Your task to perform on an android device: add a contact Image 0: 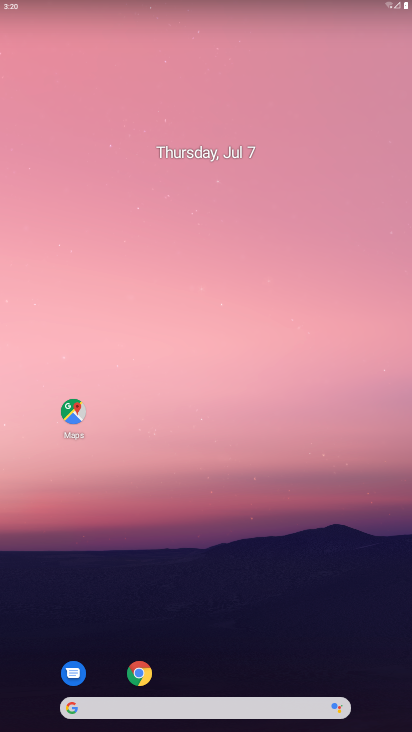
Step 0: drag from (196, 656) to (219, 46)
Your task to perform on an android device: add a contact Image 1: 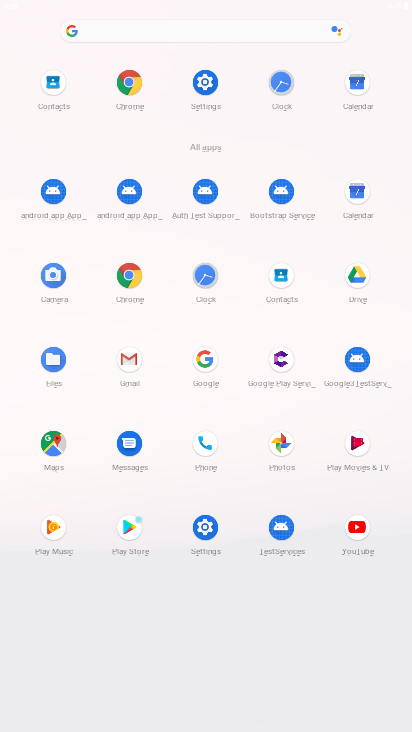
Step 1: click (289, 274)
Your task to perform on an android device: add a contact Image 2: 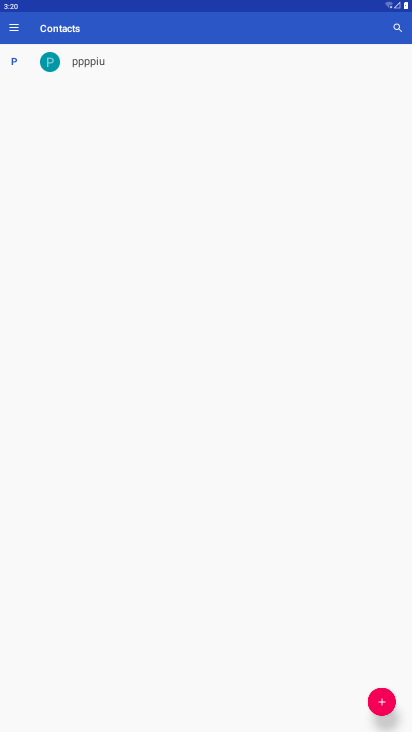
Step 2: click (382, 701)
Your task to perform on an android device: add a contact Image 3: 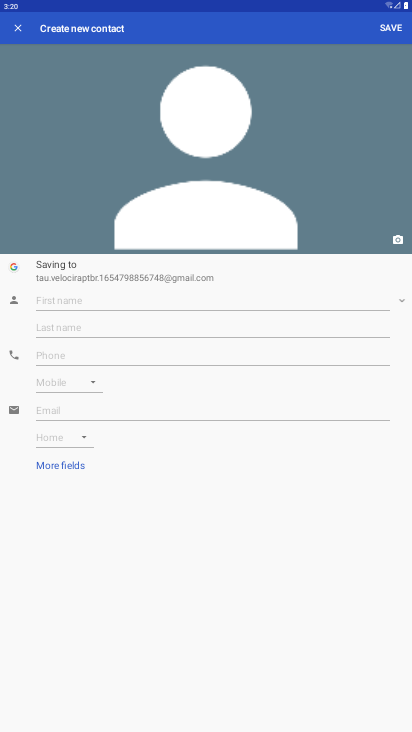
Step 3: click (159, 299)
Your task to perform on an android device: add a contact Image 4: 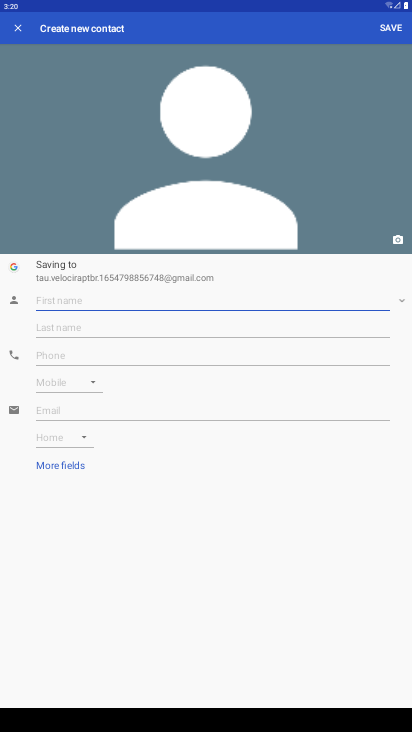
Step 4: type "atrgfhgu"
Your task to perform on an android device: add a contact Image 5: 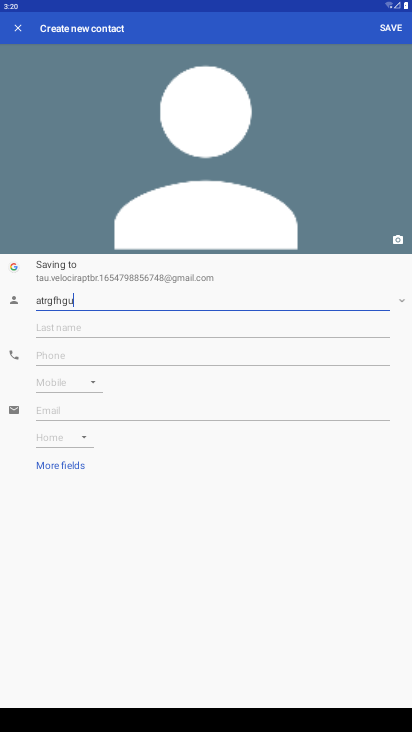
Step 5: click (82, 349)
Your task to perform on an android device: add a contact Image 6: 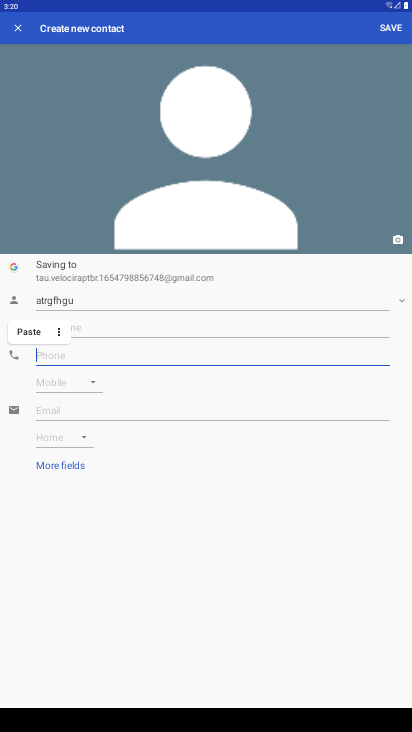
Step 6: type "4576558766"
Your task to perform on an android device: add a contact Image 7: 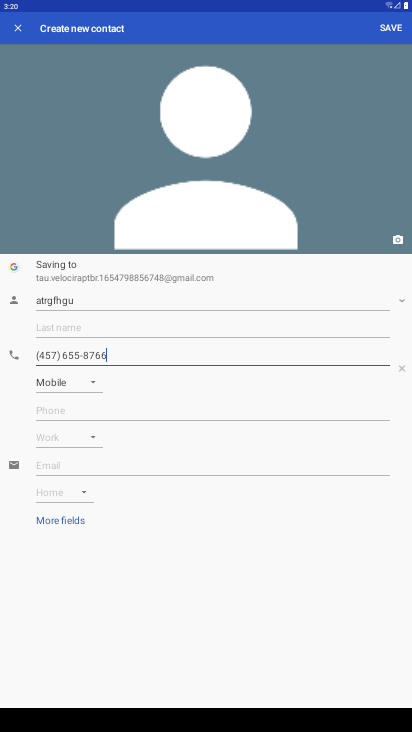
Step 7: click (394, 28)
Your task to perform on an android device: add a contact Image 8: 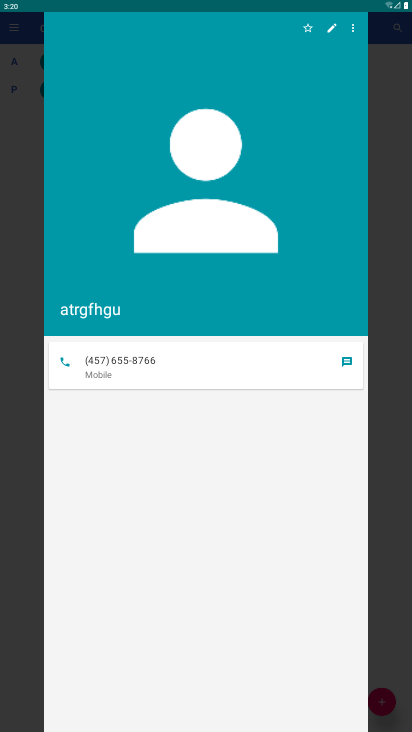
Step 8: task complete